Your task to perform on an android device: Search for Mexican restaurants on Maps Image 0: 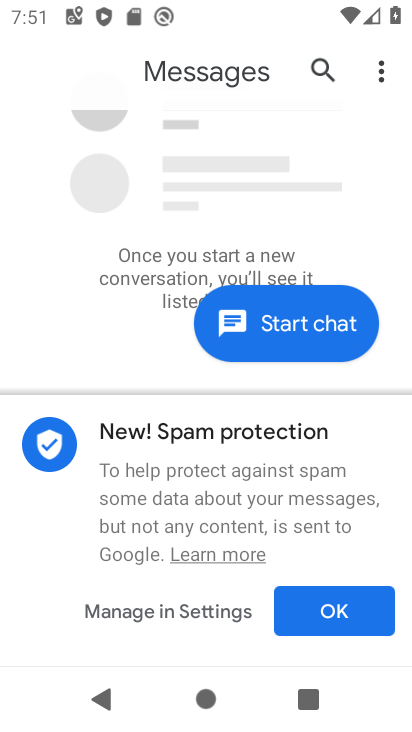
Step 0: press home button
Your task to perform on an android device: Search for Mexican restaurants on Maps Image 1: 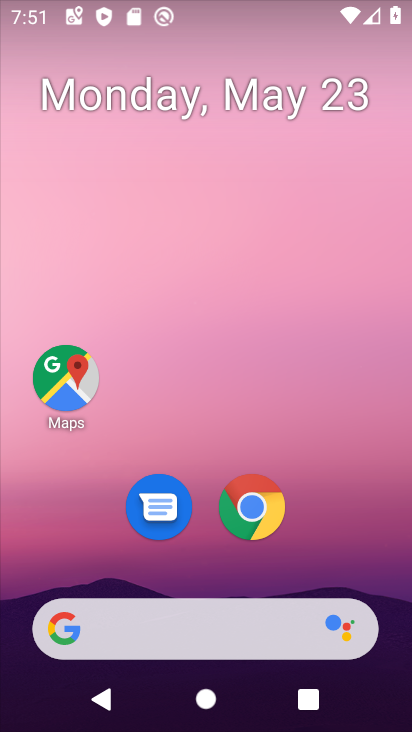
Step 1: drag from (345, 557) to (312, 205)
Your task to perform on an android device: Search for Mexican restaurants on Maps Image 2: 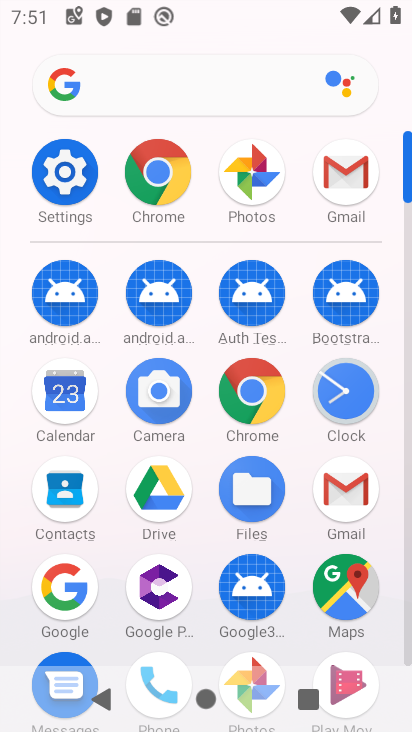
Step 2: click (342, 606)
Your task to perform on an android device: Search for Mexican restaurants on Maps Image 3: 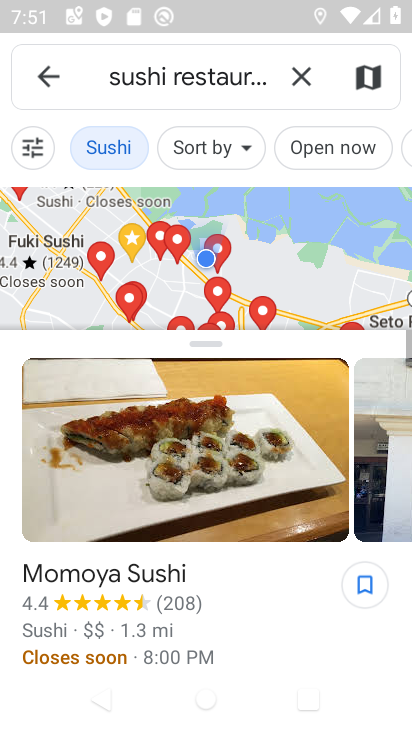
Step 3: click (299, 75)
Your task to perform on an android device: Search for Mexican restaurants on Maps Image 4: 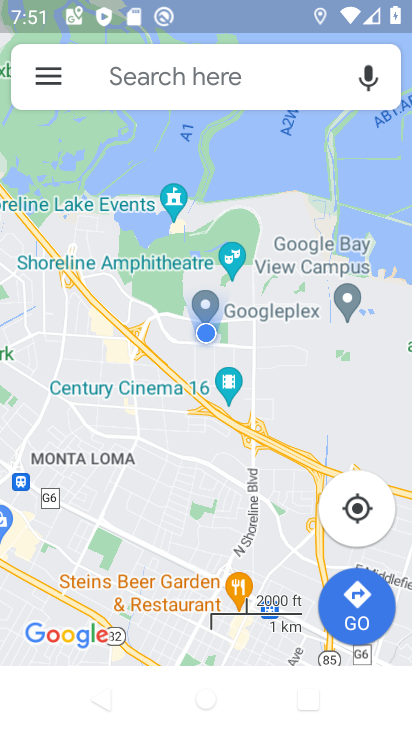
Step 4: click (226, 91)
Your task to perform on an android device: Search for Mexican restaurants on Maps Image 5: 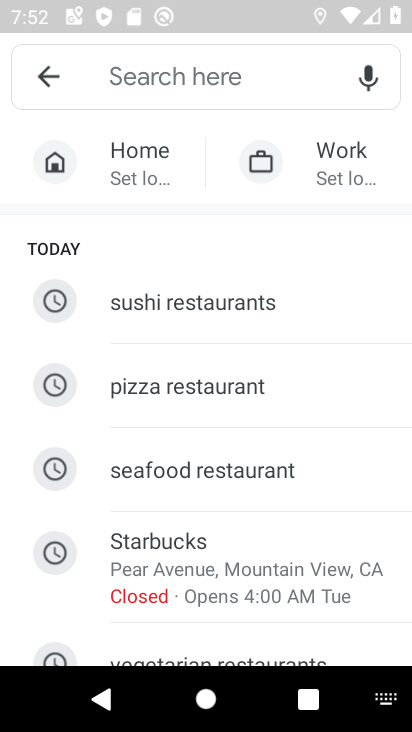
Step 5: type "mexican restaurants "
Your task to perform on an android device: Search for Mexican restaurants on Maps Image 6: 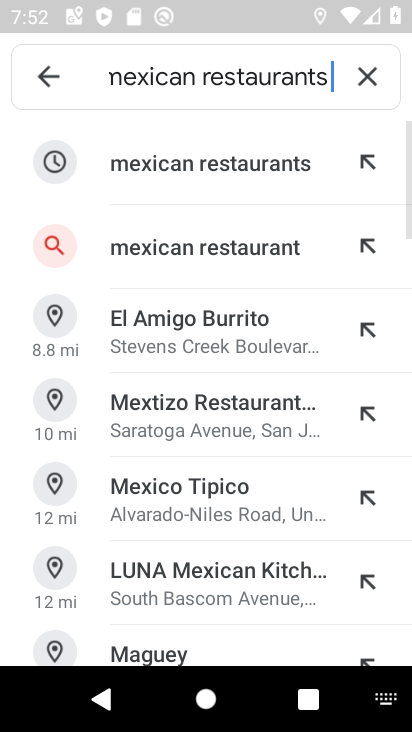
Step 6: click (248, 178)
Your task to perform on an android device: Search for Mexican restaurants on Maps Image 7: 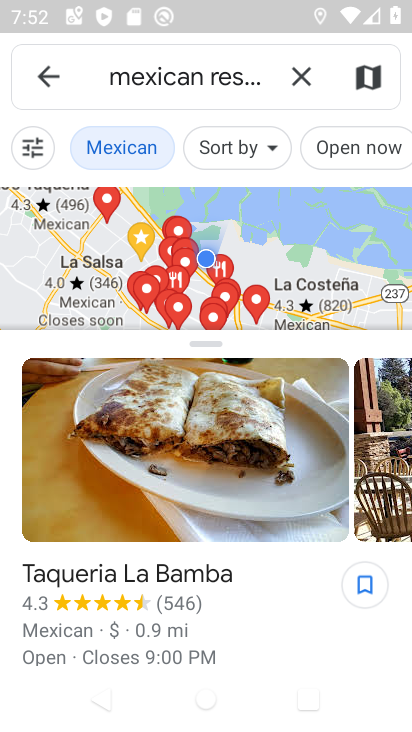
Step 7: task complete